Your task to perform on an android device: toggle javascript in the chrome app Image 0: 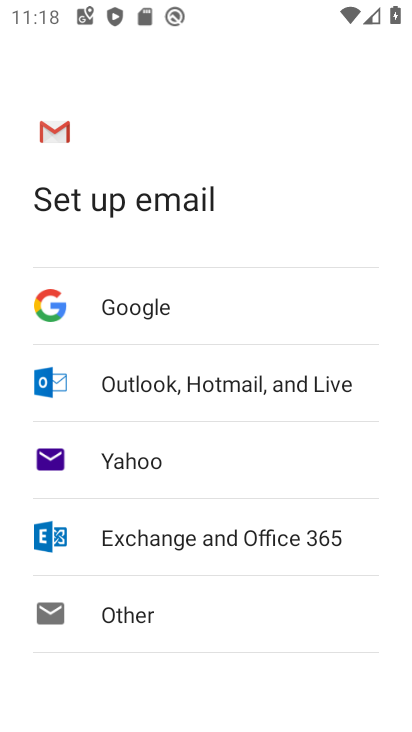
Step 0: press home button
Your task to perform on an android device: toggle javascript in the chrome app Image 1: 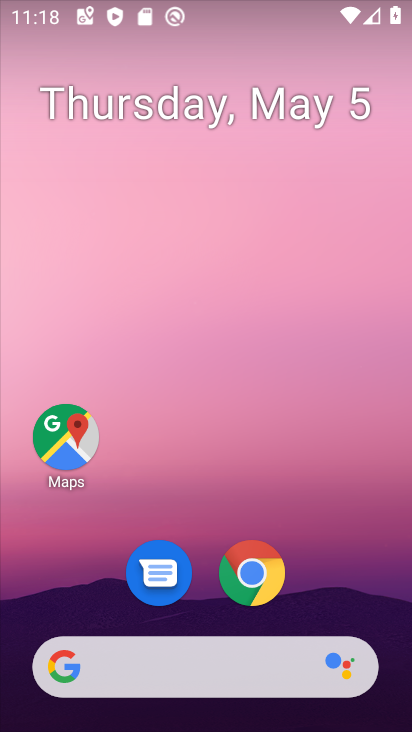
Step 1: drag from (297, 582) to (281, 229)
Your task to perform on an android device: toggle javascript in the chrome app Image 2: 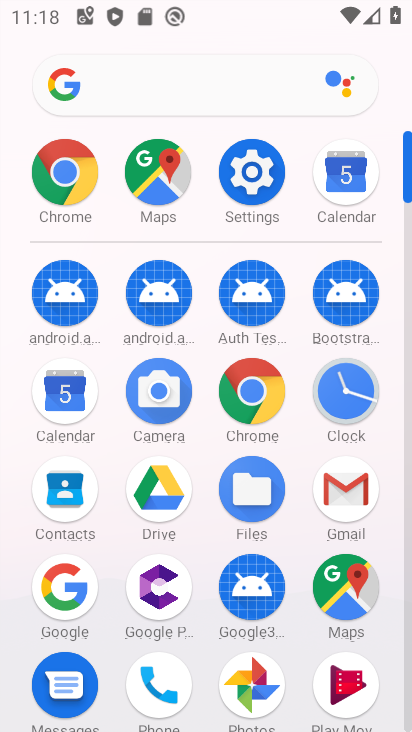
Step 2: click (263, 399)
Your task to perform on an android device: toggle javascript in the chrome app Image 3: 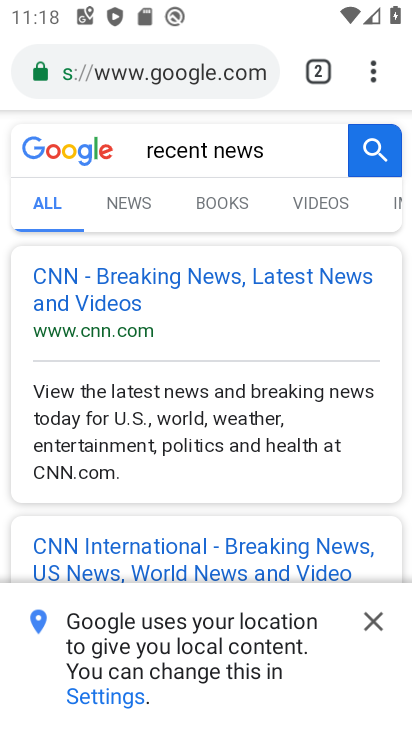
Step 3: click (366, 76)
Your task to perform on an android device: toggle javascript in the chrome app Image 4: 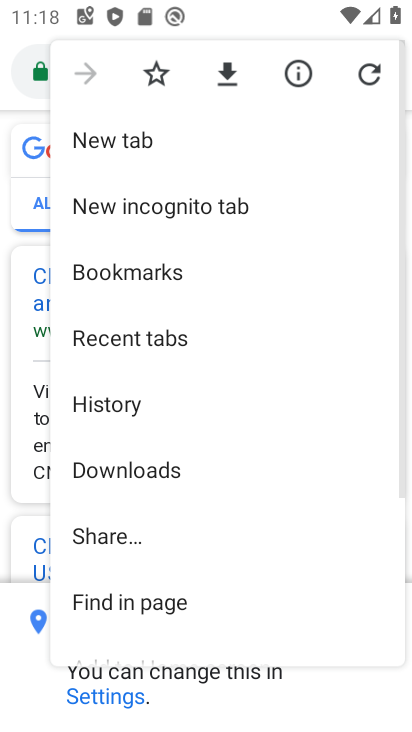
Step 4: drag from (182, 587) to (233, 238)
Your task to perform on an android device: toggle javascript in the chrome app Image 5: 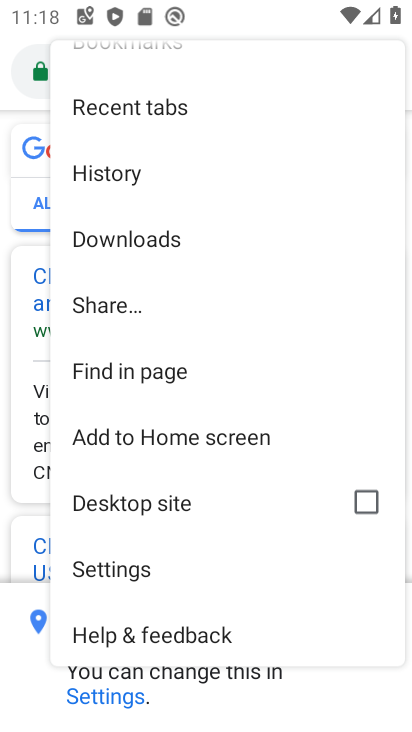
Step 5: click (164, 571)
Your task to perform on an android device: toggle javascript in the chrome app Image 6: 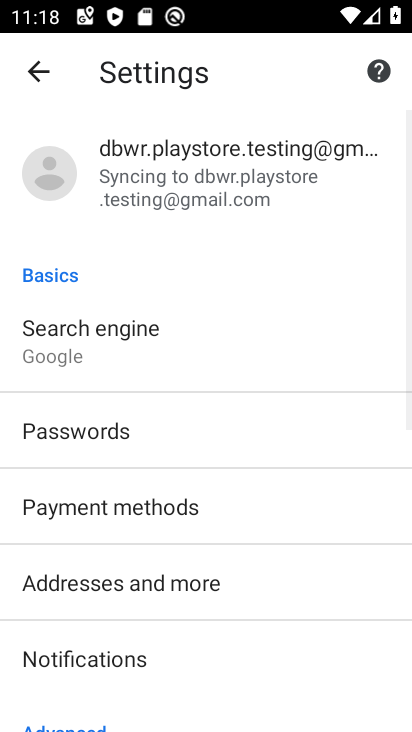
Step 6: drag from (203, 626) to (267, 257)
Your task to perform on an android device: toggle javascript in the chrome app Image 7: 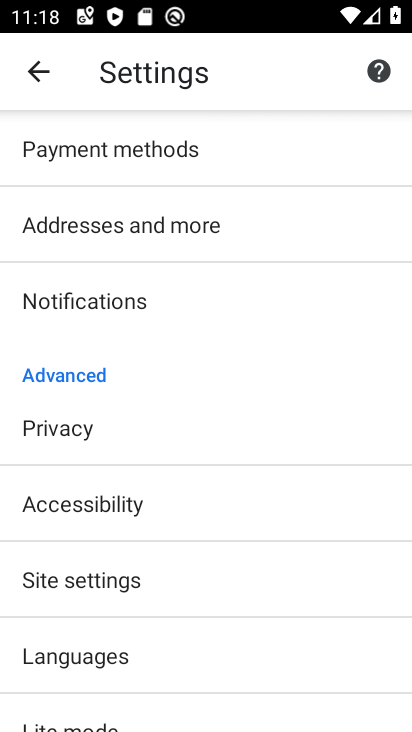
Step 7: click (157, 591)
Your task to perform on an android device: toggle javascript in the chrome app Image 8: 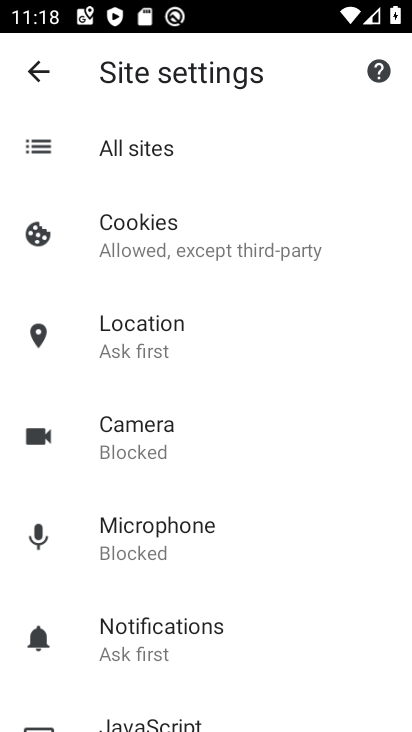
Step 8: drag from (184, 652) to (223, 426)
Your task to perform on an android device: toggle javascript in the chrome app Image 9: 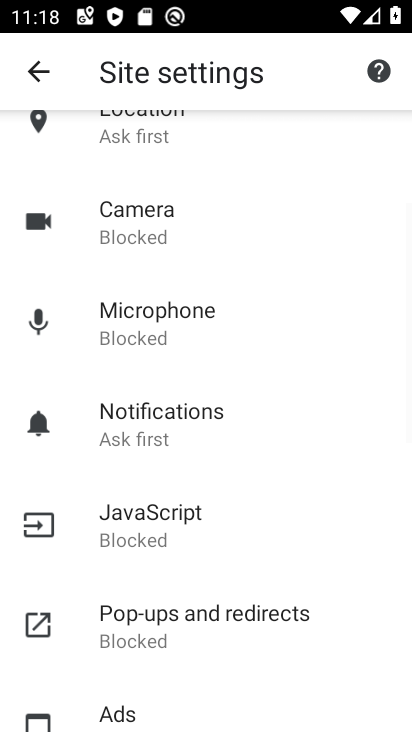
Step 9: click (178, 532)
Your task to perform on an android device: toggle javascript in the chrome app Image 10: 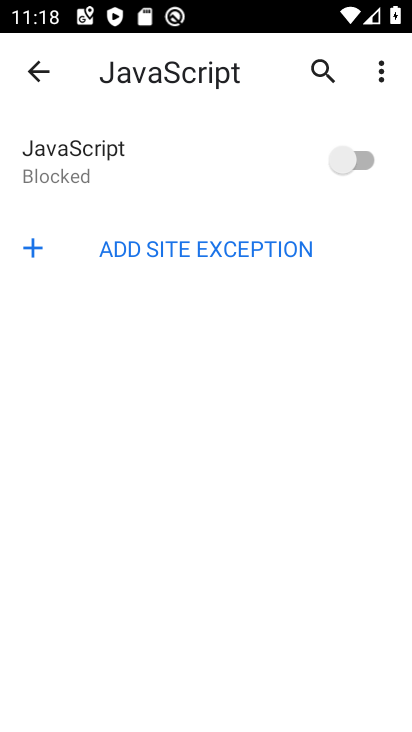
Step 10: click (366, 159)
Your task to perform on an android device: toggle javascript in the chrome app Image 11: 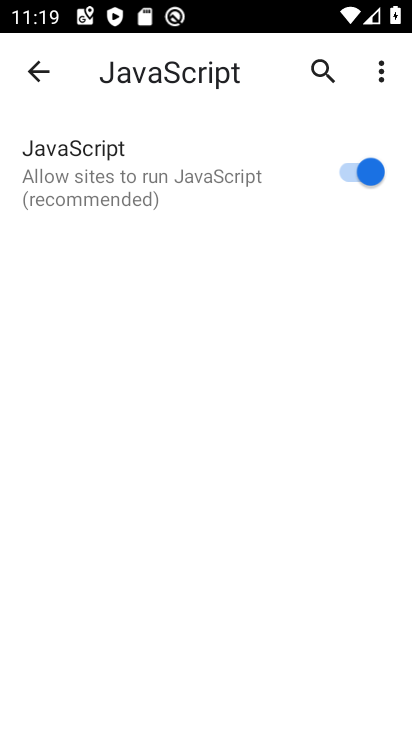
Step 11: task complete